Your task to perform on an android device: change keyboard looks Image 0: 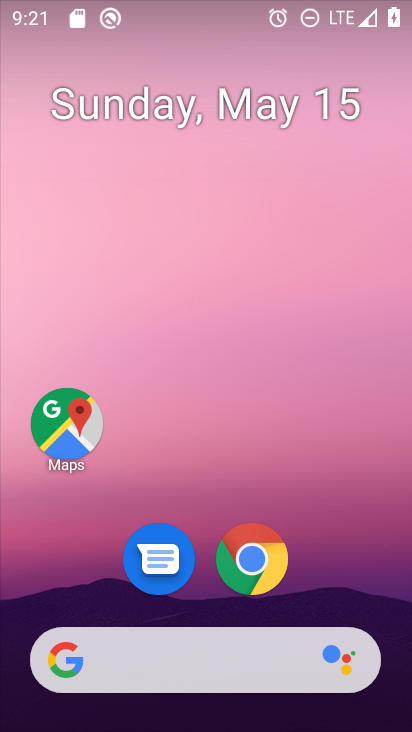
Step 0: drag from (391, 542) to (347, 108)
Your task to perform on an android device: change keyboard looks Image 1: 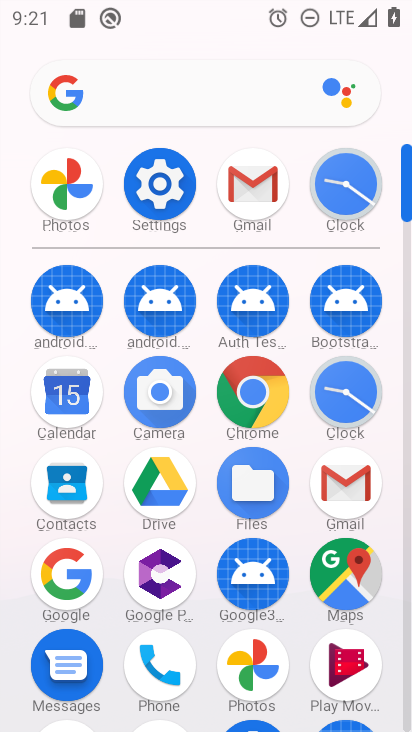
Step 1: click (157, 217)
Your task to perform on an android device: change keyboard looks Image 2: 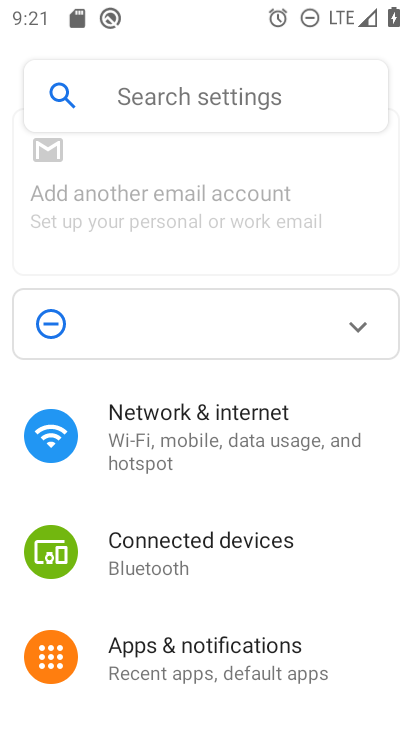
Step 2: drag from (228, 614) to (296, 66)
Your task to perform on an android device: change keyboard looks Image 3: 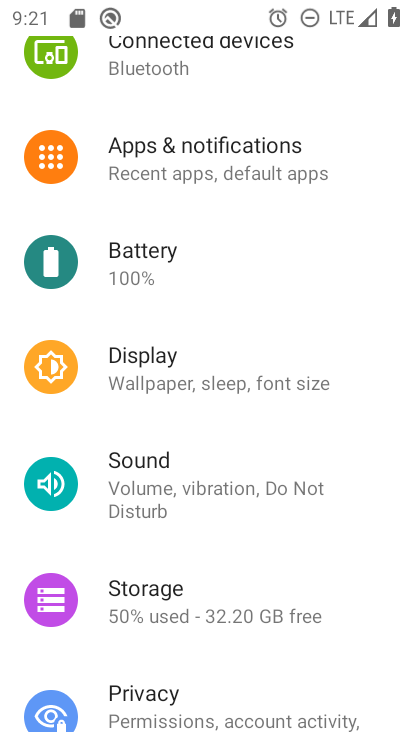
Step 3: drag from (214, 684) to (284, 339)
Your task to perform on an android device: change keyboard looks Image 4: 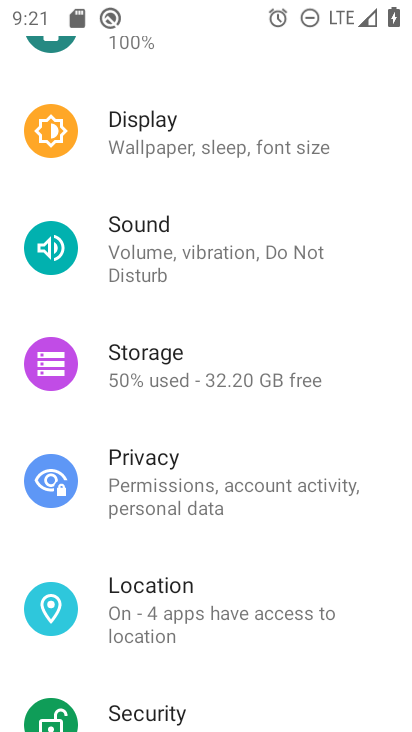
Step 4: drag from (245, 691) to (281, 235)
Your task to perform on an android device: change keyboard looks Image 5: 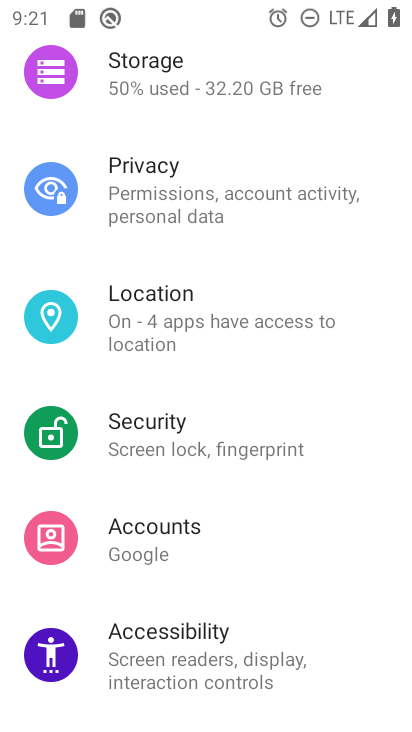
Step 5: drag from (262, 654) to (306, 402)
Your task to perform on an android device: change keyboard looks Image 6: 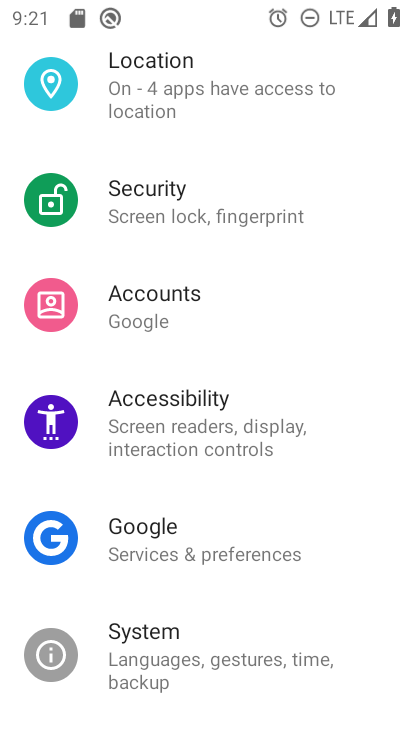
Step 6: drag from (224, 655) to (275, 502)
Your task to perform on an android device: change keyboard looks Image 7: 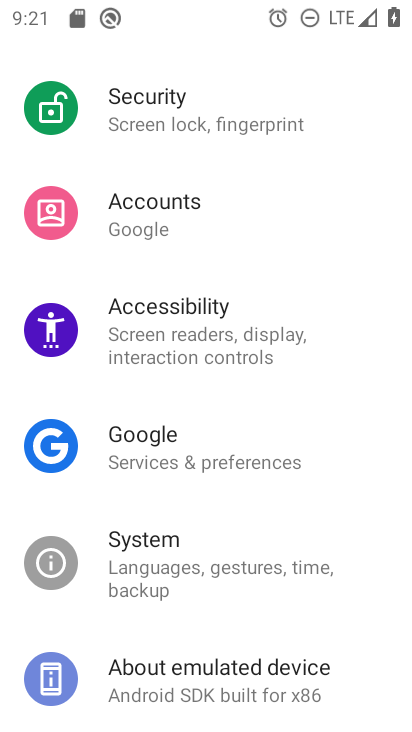
Step 7: click (259, 562)
Your task to perform on an android device: change keyboard looks Image 8: 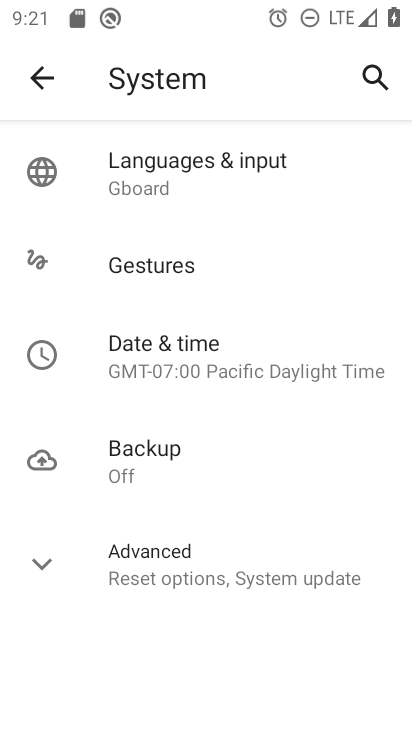
Step 8: click (190, 193)
Your task to perform on an android device: change keyboard looks Image 9: 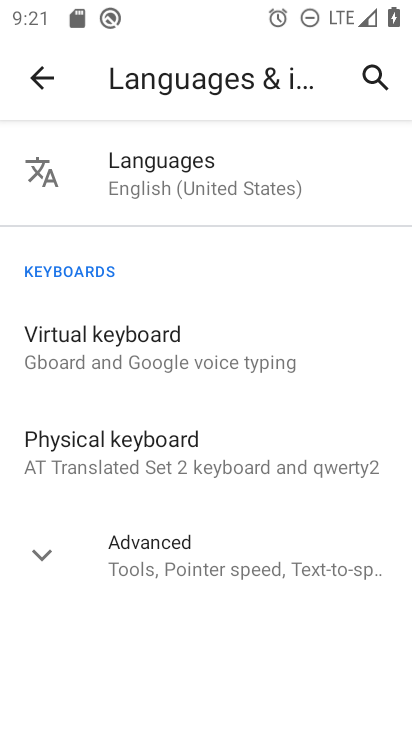
Step 9: click (172, 346)
Your task to perform on an android device: change keyboard looks Image 10: 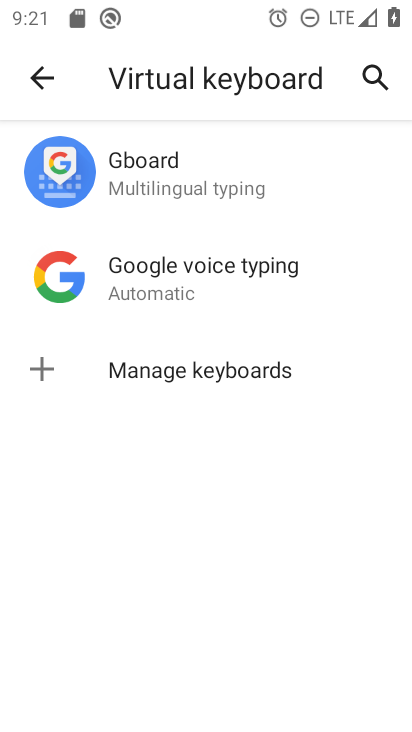
Step 10: click (215, 175)
Your task to perform on an android device: change keyboard looks Image 11: 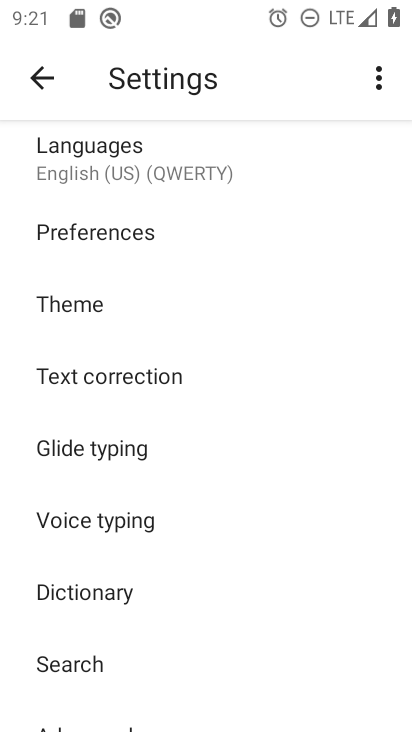
Step 11: click (140, 317)
Your task to perform on an android device: change keyboard looks Image 12: 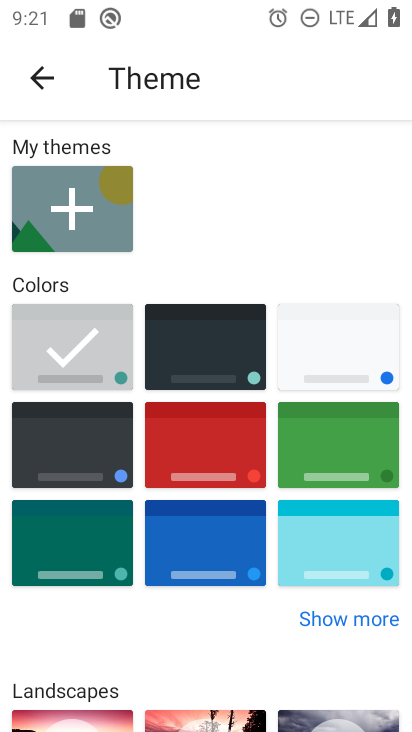
Step 12: click (183, 341)
Your task to perform on an android device: change keyboard looks Image 13: 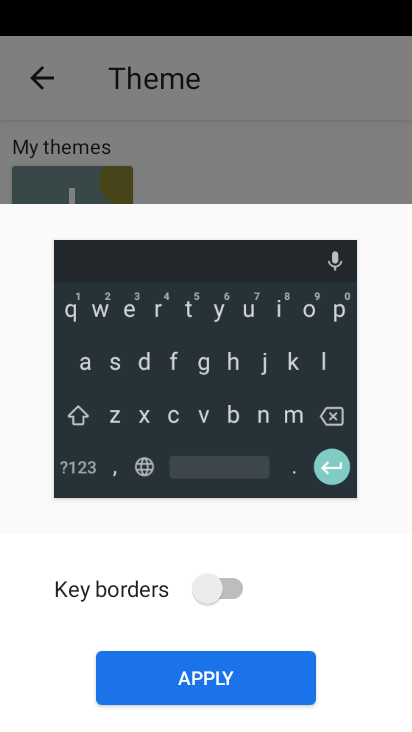
Step 13: click (270, 666)
Your task to perform on an android device: change keyboard looks Image 14: 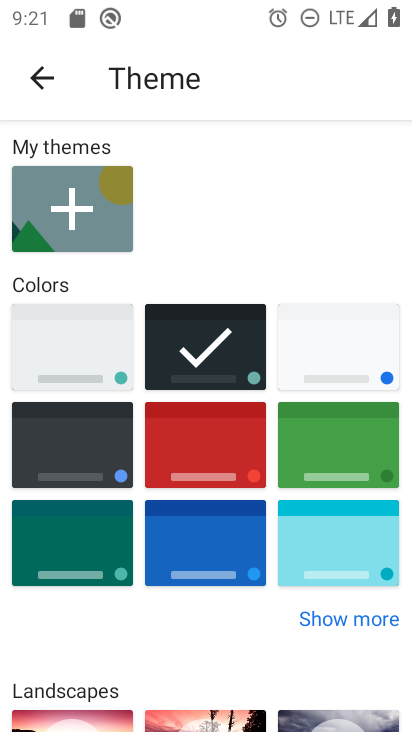
Step 14: task complete